Your task to perform on an android device: check android version Image 0: 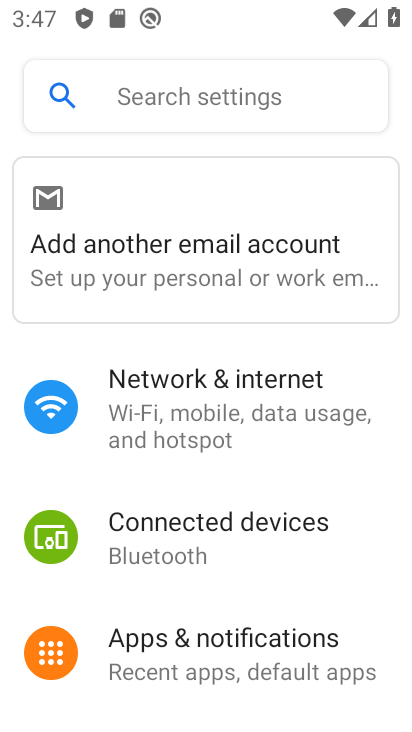
Step 0: drag from (315, 705) to (269, 44)
Your task to perform on an android device: check android version Image 1: 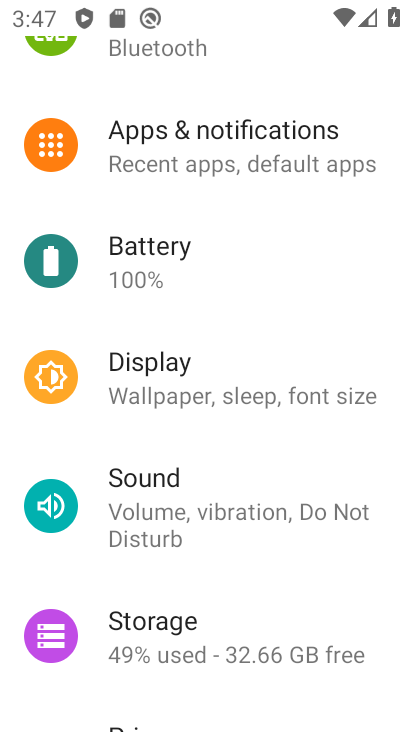
Step 1: drag from (258, 585) to (218, 149)
Your task to perform on an android device: check android version Image 2: 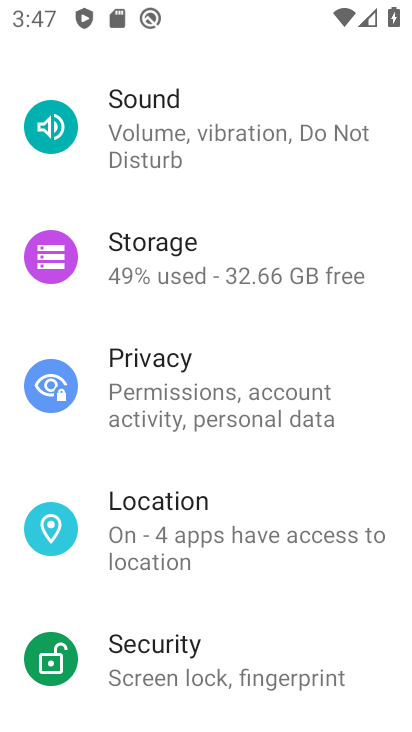
Step 2: drag from (219, 588) to (208, 192)
Your task to perform on an android device: check android version Image 3: 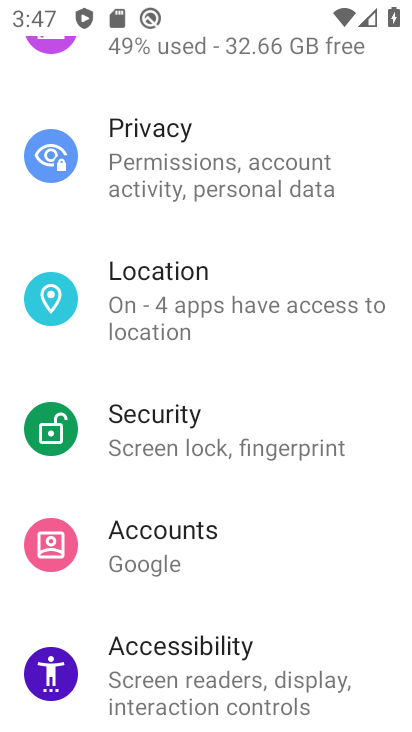
Step 3: drag from (229, 581) to (212, 202)
Your task to perform on an android device: check android version Image 4: 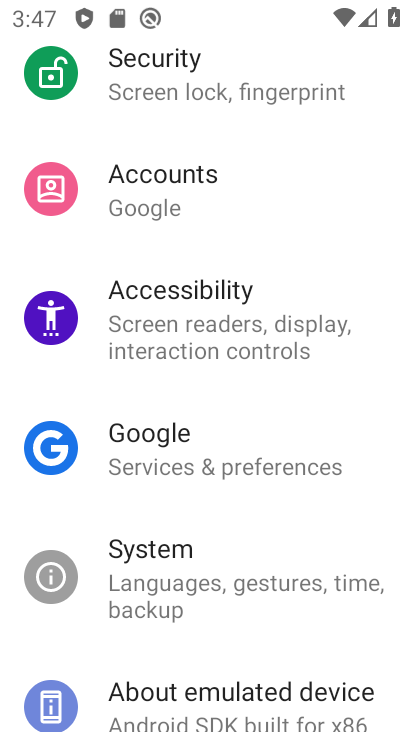
Step 4: drag from (233, 600) to (205, 253)
Your task to perform on an android device: check android version Image 5: 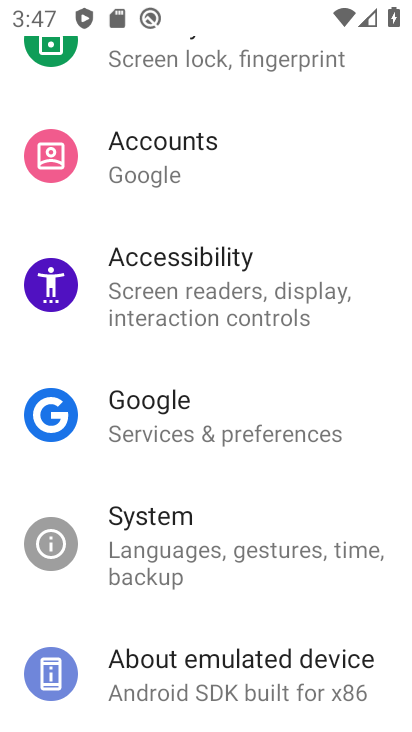
Step 5: click (257, 671)
Your task to perform on an android device: check android version Image 6: 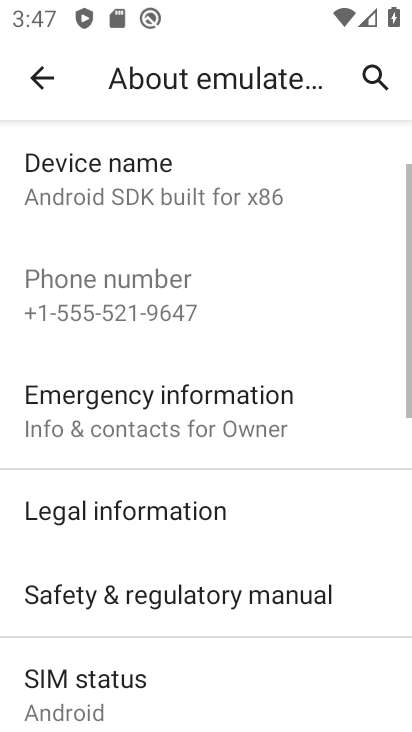
Step 6: drag from (239, 664) to (217, 354)
Your task to perform on an android device: check android version Image 7: 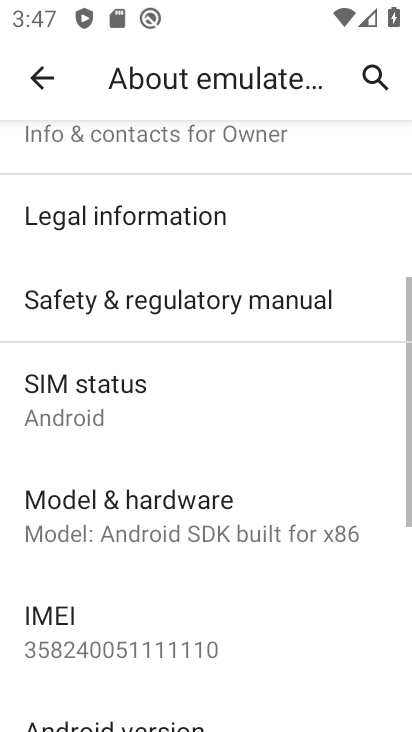
Step 7: drag from (180, 639) to (132, 243)
Your task to perform on an android device: check android version Image 8: 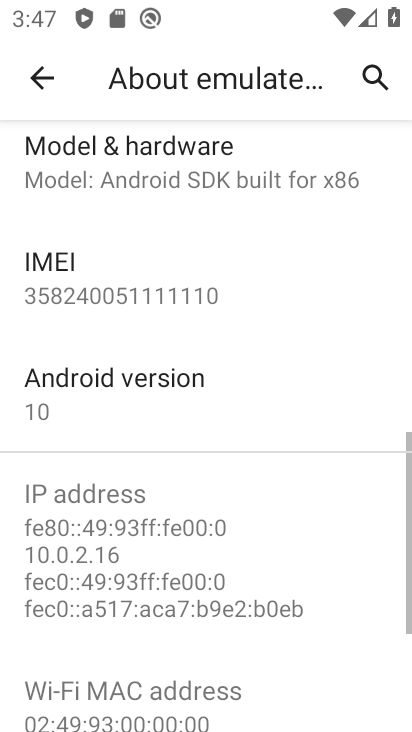
Step 8: click (142, 430)
Your task to perform on an android device: check android version Image 9: 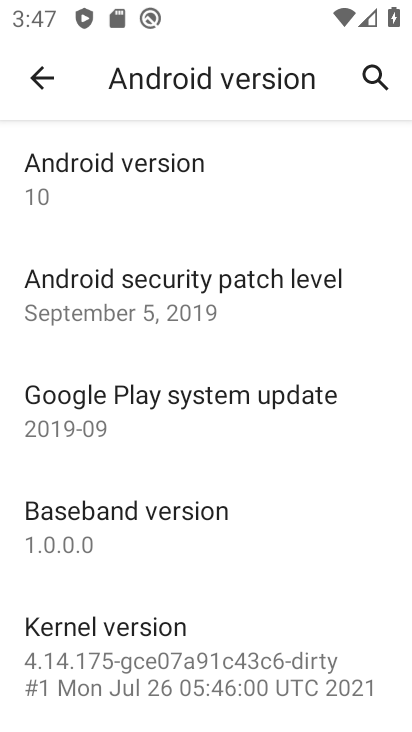
Step 9: task complete